Your task to perform on an android device: turn smart compose on in the gmail app Image 0: 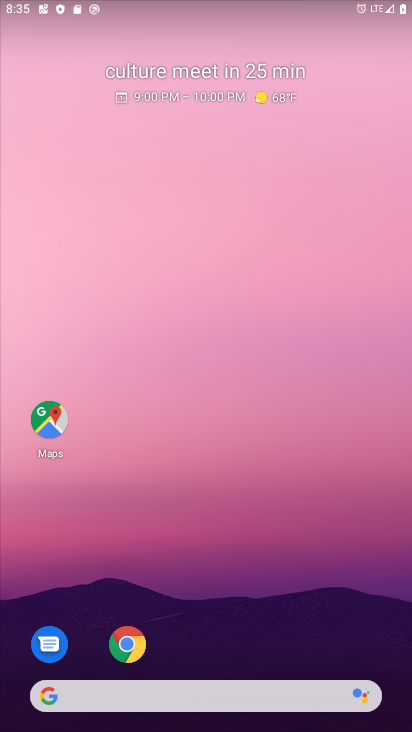
Step 0: drag from (252, 707) to (270, 253)
Your task to perform on an android device: turn smart compose on in the gmail app Image 1: 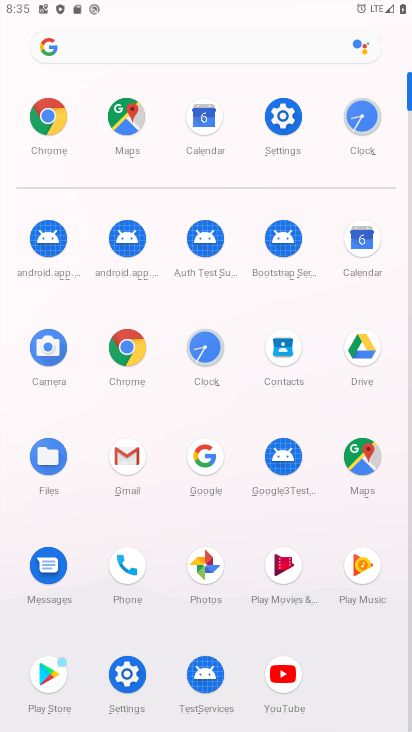
Step 1: click (133, 466)
Your task to perform on an android device: turn smart compose on in the gmail app Image 2: 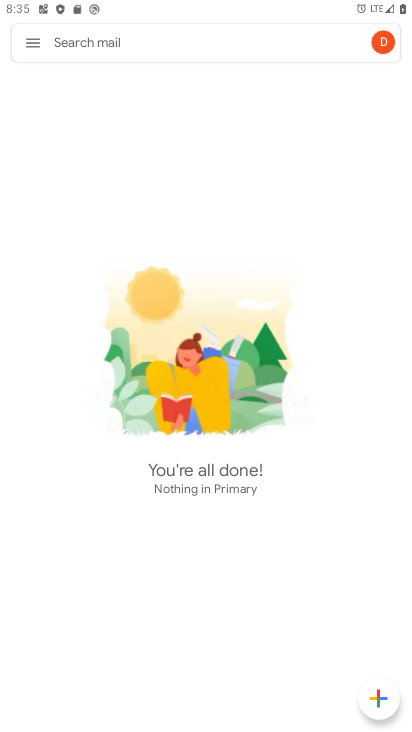
Step 2: click (40, 54)
Your task to perform on an android device: turn smart compose on in the gmail app Image 3: 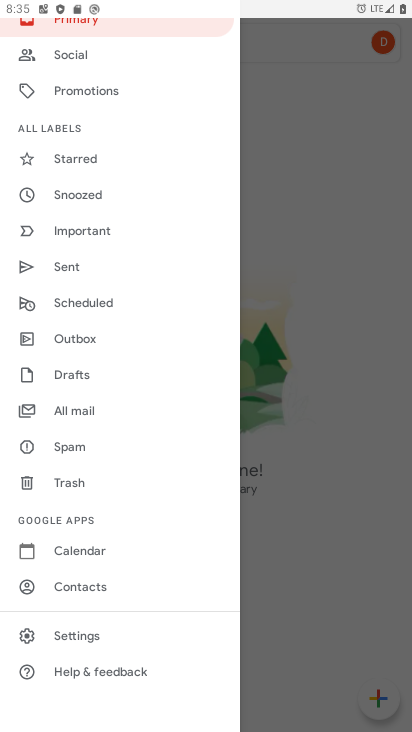
Step 3: click (75, 639)
Your task to perform on an android device: turn smart compose on in the gmail app Image 4: 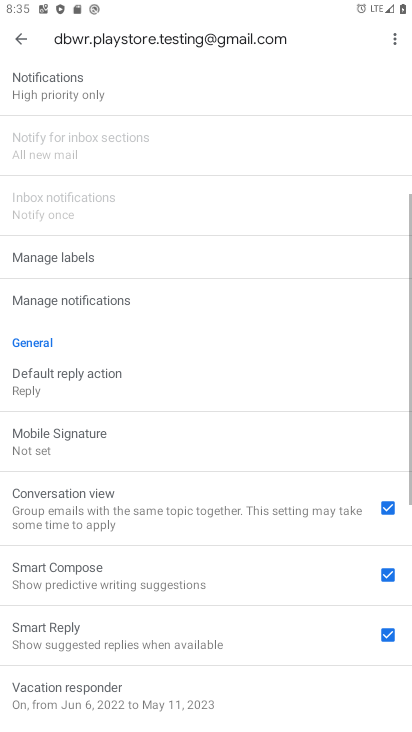
Step 4: drag from (165, 632) to (159, 460)
Your task to perform on an android device: turn smart compose on in the gmail app Image 5: 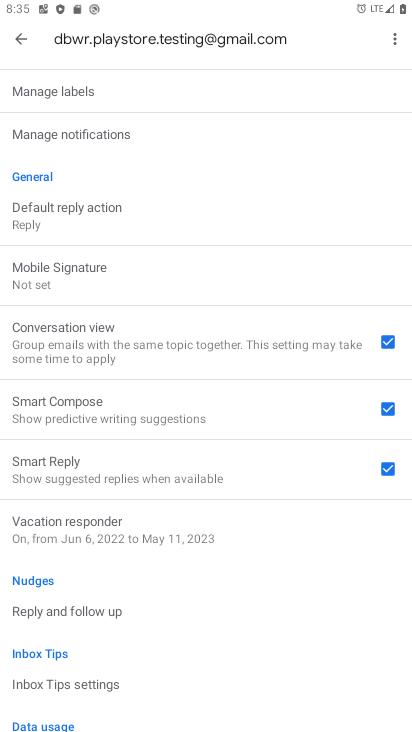
Step 5: click (397, 409)
Your task to perform on an android device: turn smart compose on in the gmail app Image 6: 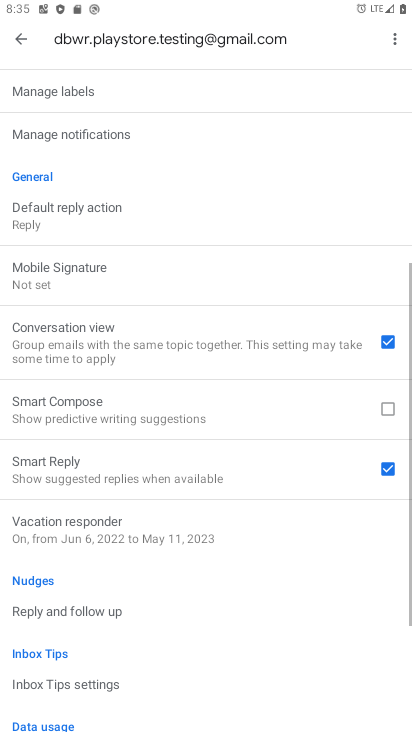
Step 6: click (395, 409)
Your task to perform on an android device: turn smart compose on in the gmail app Image 7: 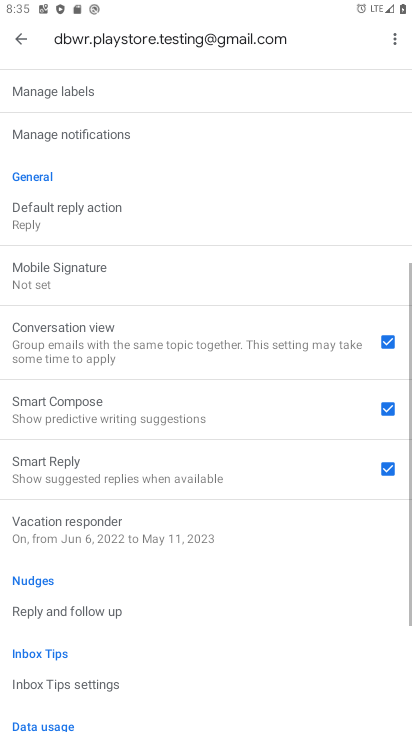
Step 7: task complete